Your task to perform on an android device: install app "eBay: The shopping marketplace" Image 0: 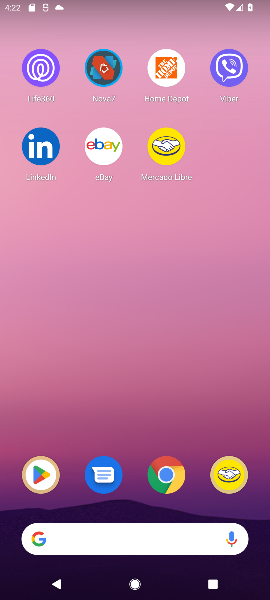
Step 0: press home button
Your task to perform on an android device: install app "eBay: The shopping marketplace" Image 1: 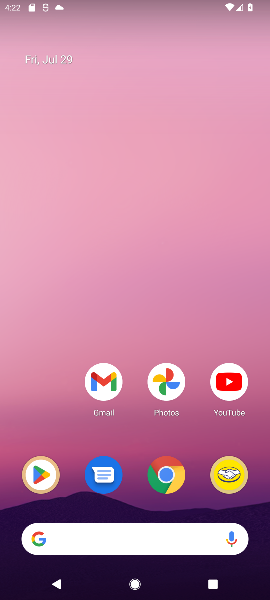
Step 1: click (41, 473)
Your task to perform on an android device: install app "eBay: The shopping marketplace" Image 2: 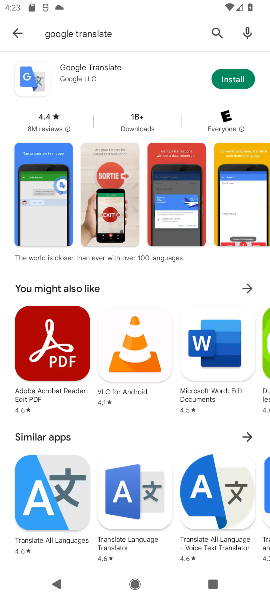
Step 2: click (15, 31)
Your task to perform on an android device: install app "eBay: The shopping marketplace" Image 3: 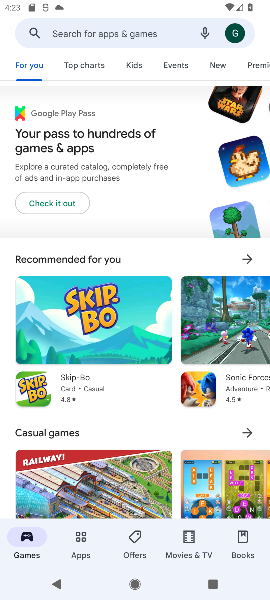
Step 3: click (85, 28)
Your task to perform on an android device: install app "eBay: The shopping marketplace" Image 4: 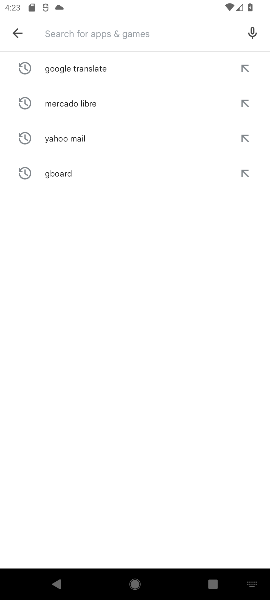
Step 4: type "eBay: The shopping marketplace"
Your task to perform on an android device: install app "eBay: The shopping marketplace" Image 5: 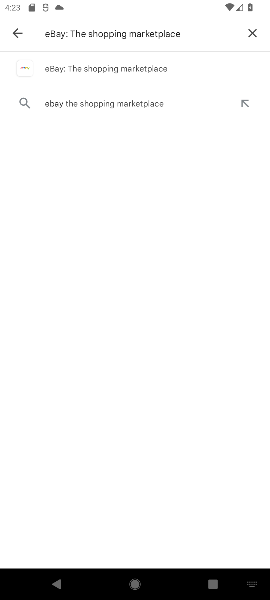
Step 5: click (153, 68)
Your task to perform on an android device: install app "eBay: The shopping marketplace" Image 6: 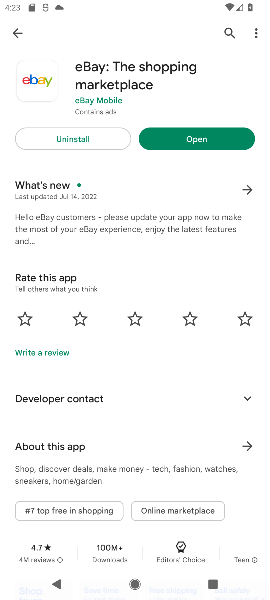
Step 6: task complete